Your task to perform on an android device: Check the news Image 0: 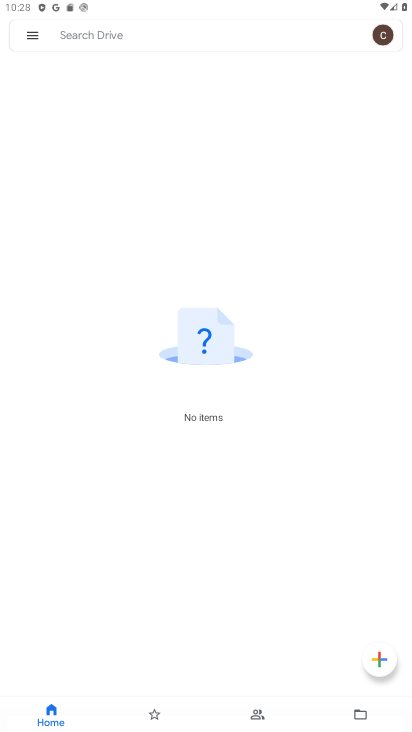
Step 0: press home button
Your task to perform on an android device: Check the news Image 1: 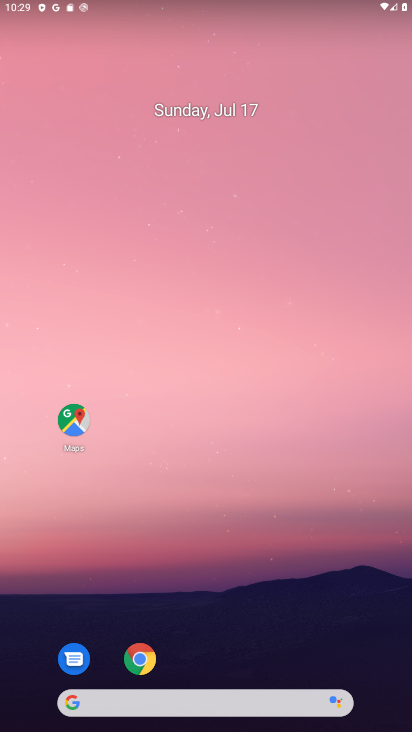
Step 1: drag from (213, 653) to (215, 144)
Your task to perform on an android device: Check the news Image 2: 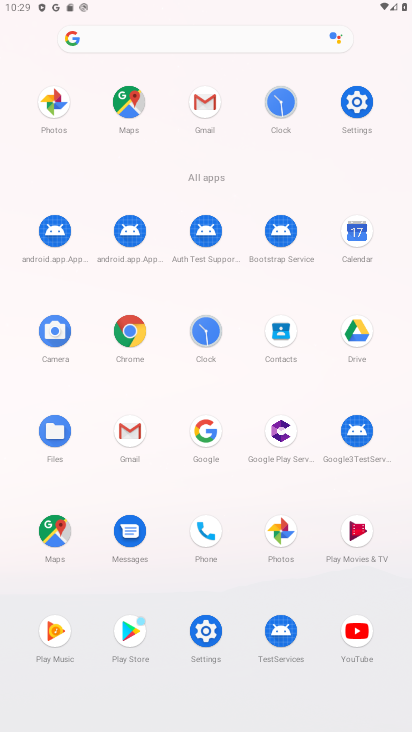
Step 2: click (196, 429)
Your task to perform on an android device: Check the news Image 3: 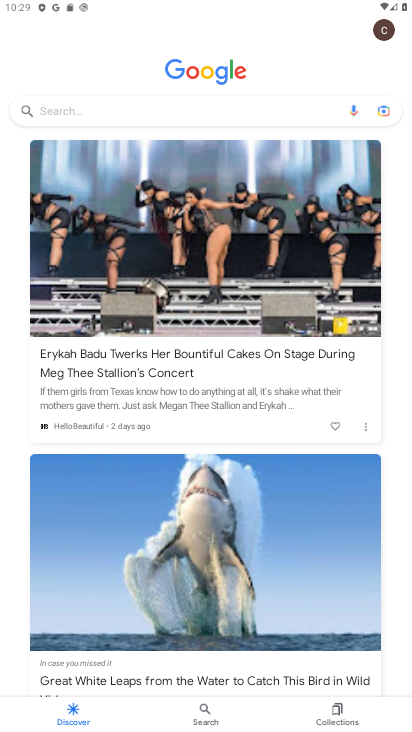
Step 3: task complete